Your task to perform on an android device: Go to privacy settings Image 0: 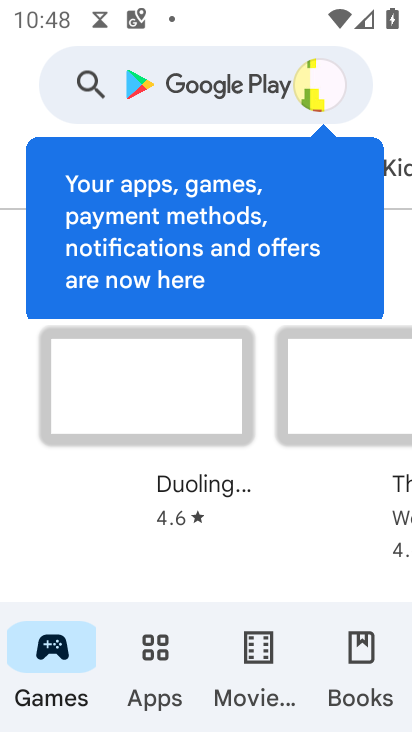
Step 0: press home button
Your task to perform on an android device: Go to privacy settings Image 1: 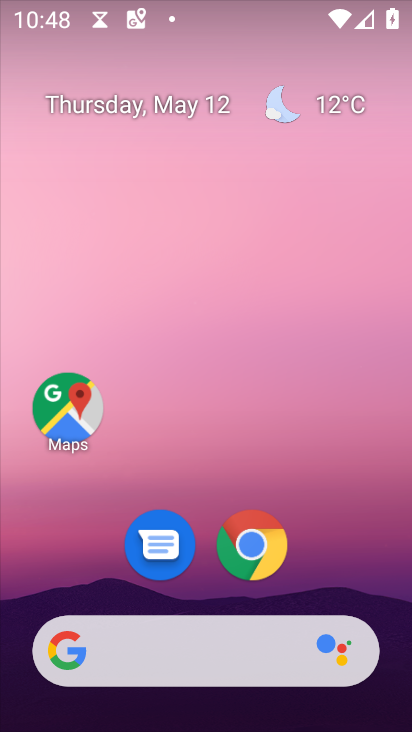
Step 1: drag from (209, 587) to (215, 51)
Your task to perform on an android device: Go to privacy settings Image 2: 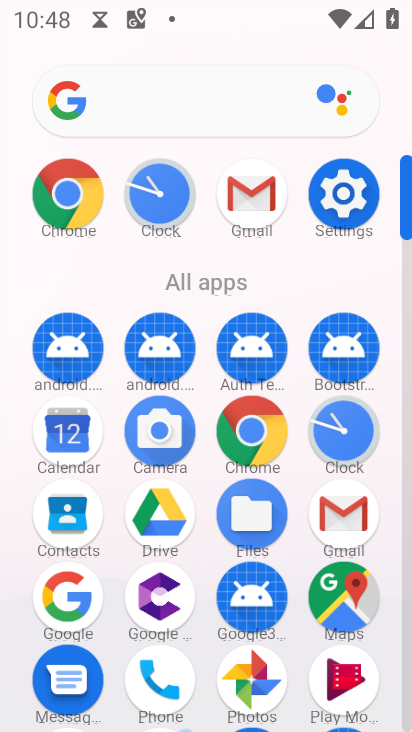
Step 2: click (338, 193)
Your task to perform on an android device: Go to privacy settings Image 3: 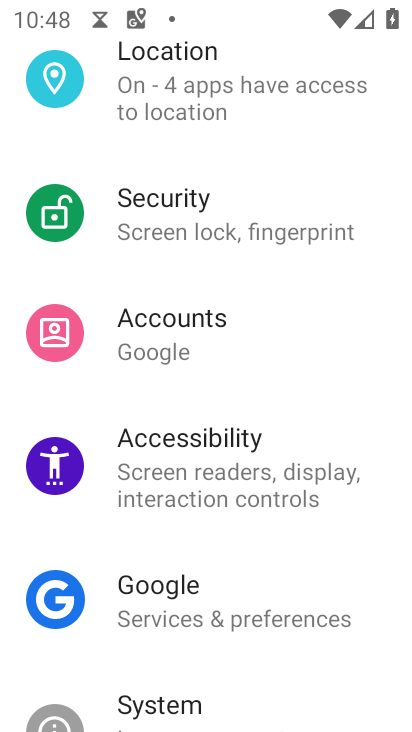
Step 3: drag from (172, 154) to (170, 697)
Your task to perform on an android device: Go to privacy settings Image 4: 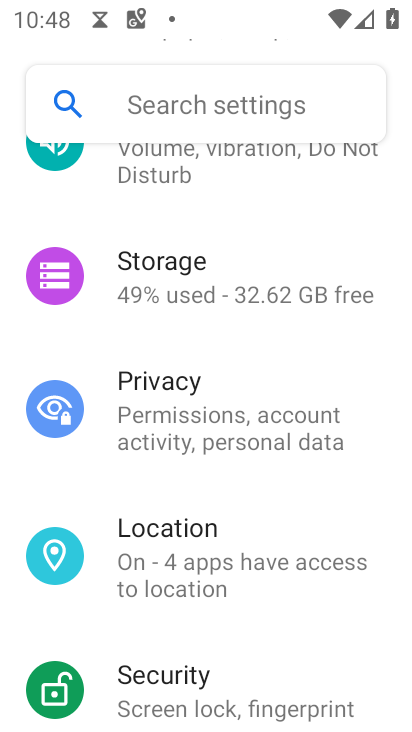
Step 4: click (101, 397)
Your task to perform on an android device: Go to privacy settings Image 5: 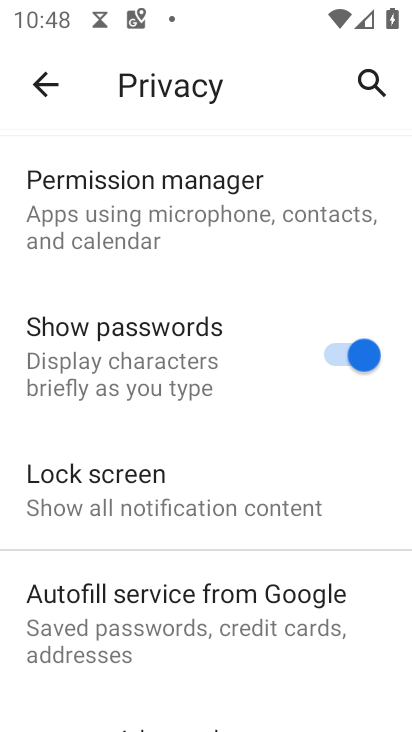
Step 5: drag from (183, 552) to (199, 174)
Your task to perform on an android device: Go to privacy settings Image 6: 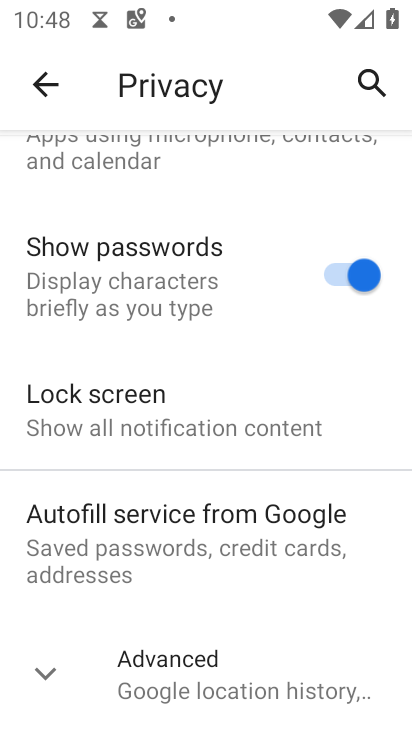
Step 6: click (43, 669)
Your task to perform on an android device: Go to privacy settings Image 7: 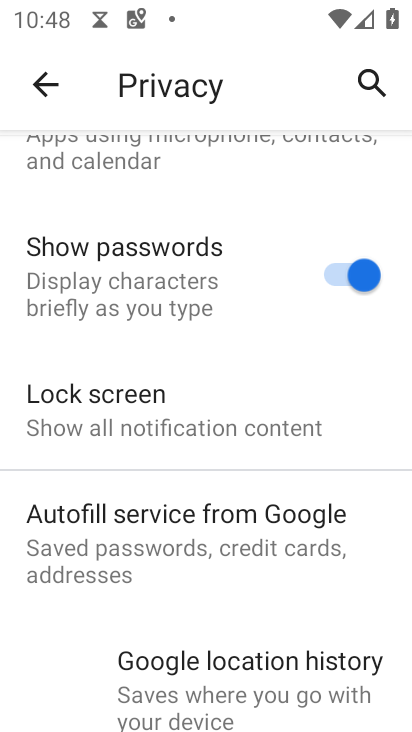
Step 7: task complete